Your task to perform on an android device: Open internet settings Image 0: 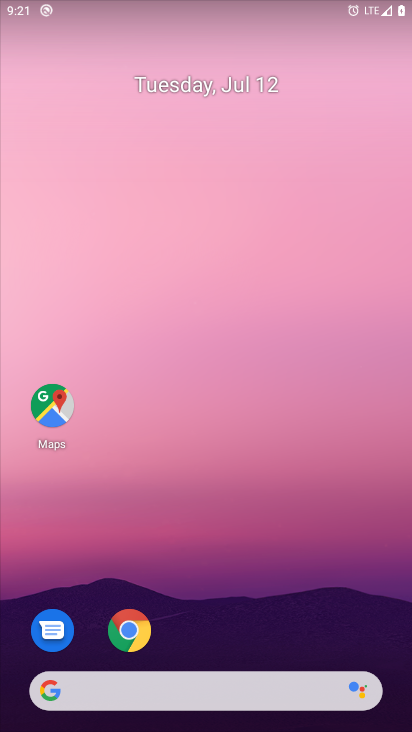
Step 0: drag from (238, 635) to (204, 47)
Your task to perform on an android device: Open internet settings Image 1: 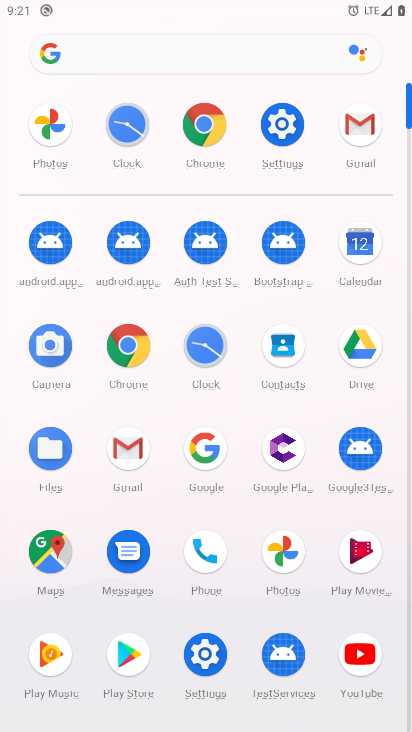
Step 1: click (291, 125)
Your task to perform on an android device: Open internet settings Image 2: 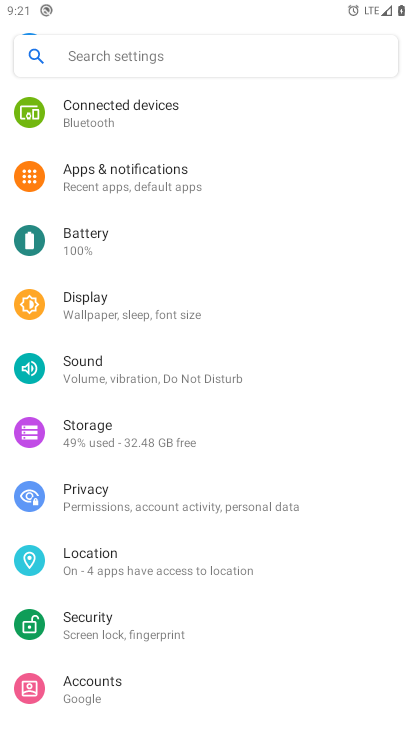
Step 2: drag from (156, 140) to (160, 373)
Your task to perform on an android device: Open internet settings Image 3: 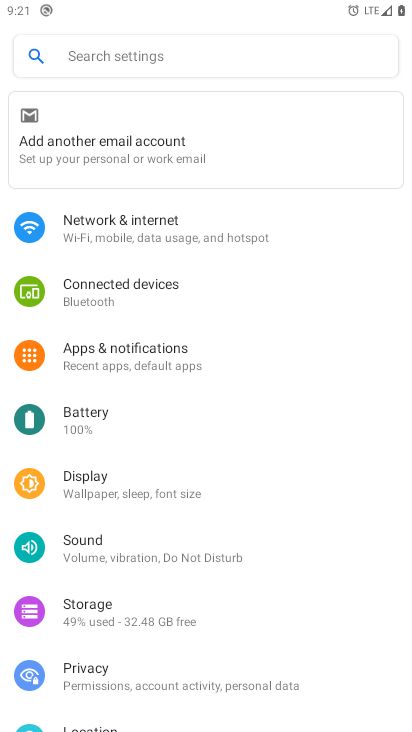
Step 3: click (112, 220)
Your task to perform on an android device: Open internet settings Image 4: 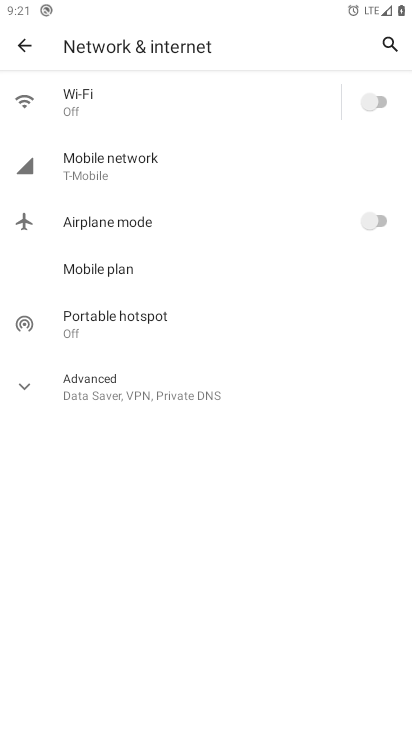
Step 4: task complete